Your task to perform on an android device: check android version Image 0: 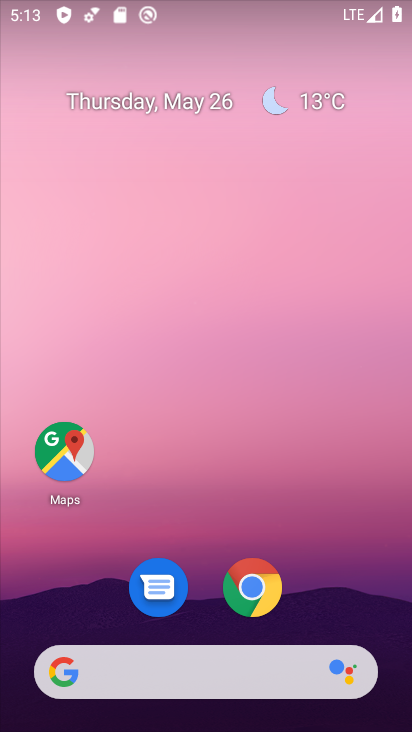
Step 0: drag from (212, 653) to (212, 165)
Your task to perform on an android device: check android version Image 1: 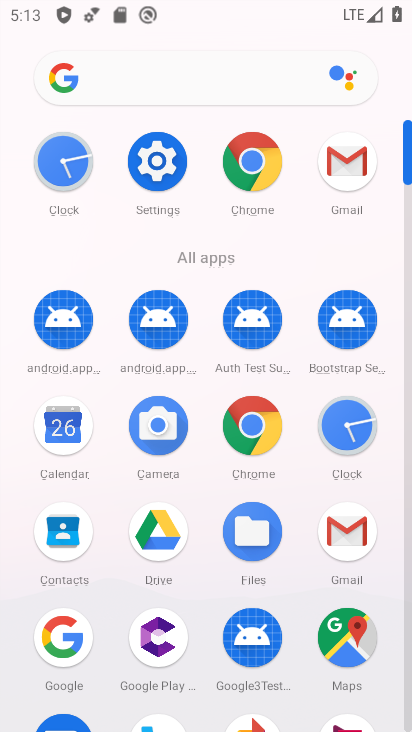
Step 1: click (155, 160)
Your task to perform on an android device: check android version Image 2: 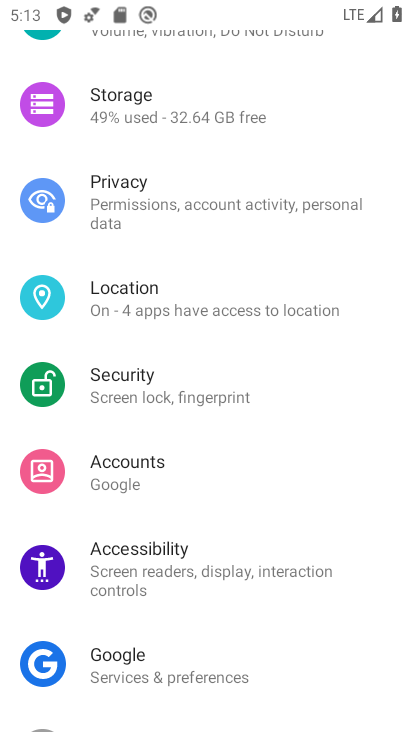
Step 2: drag from (150, 696) to (151, 149)
Your task to perform on an android device: check android version Image 3: 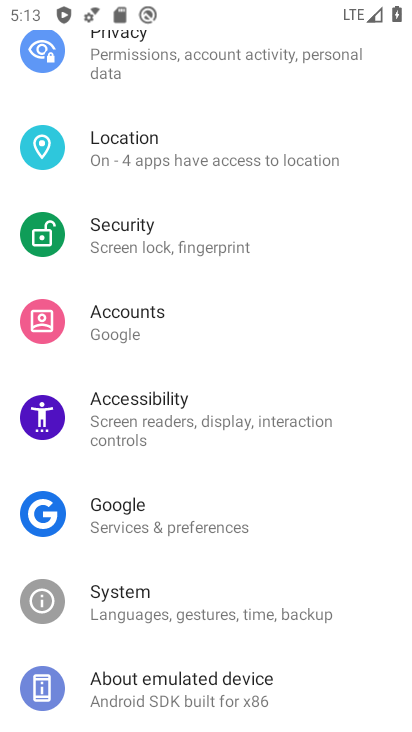
Step 3: click (175, 680)
Your task to perform on an android device: check android version Image 4: 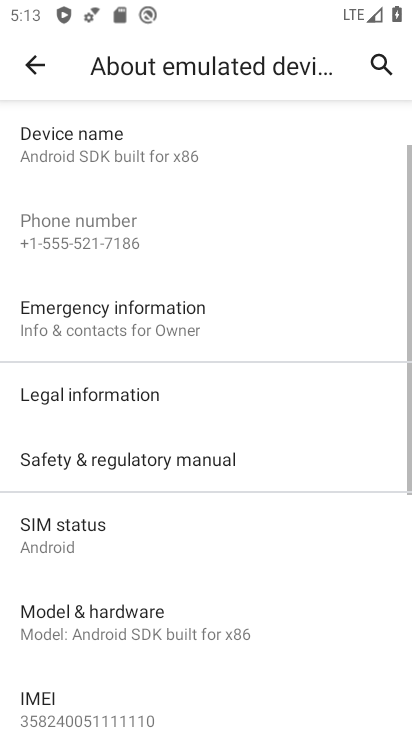
Step 4: drag from (116, 646) to (118, 229)
Your task to perform on an android device: check android version Image 5: 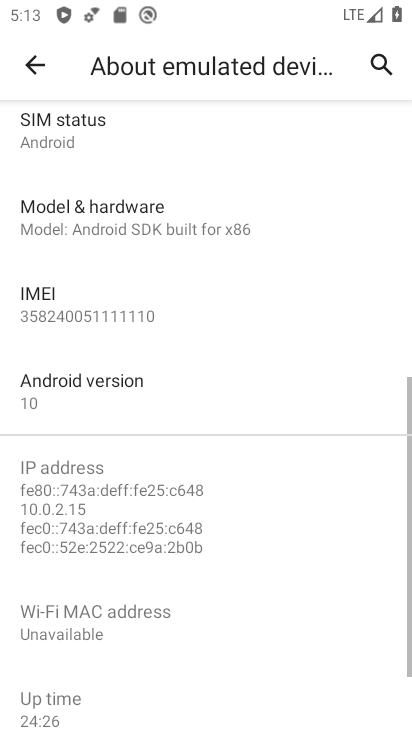
Step 5: click (96, 448)
Your task to perform on an android device: check android version Image 6: 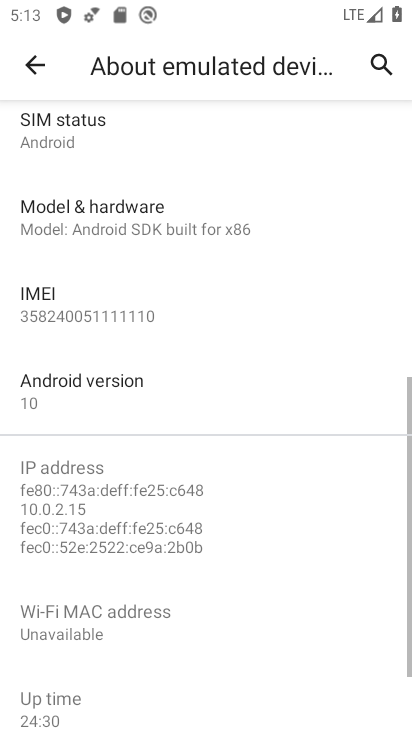
Step 6: task complete